Your task to perform on an android device: toggle airplane mode Image 0: 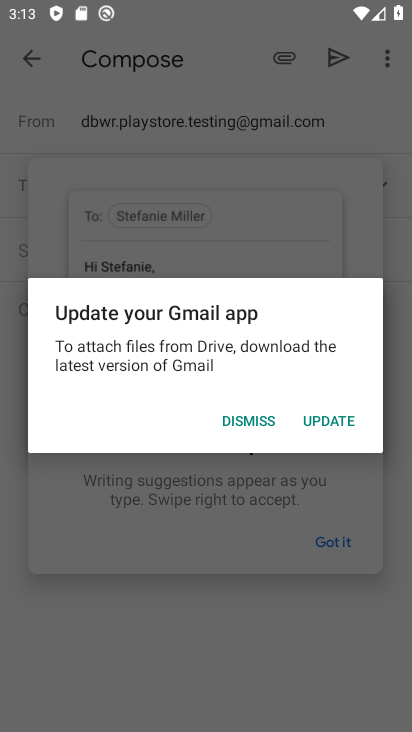
Step 0: press home button
Your task to perform on an android device: toggle airplane mode Image 1: 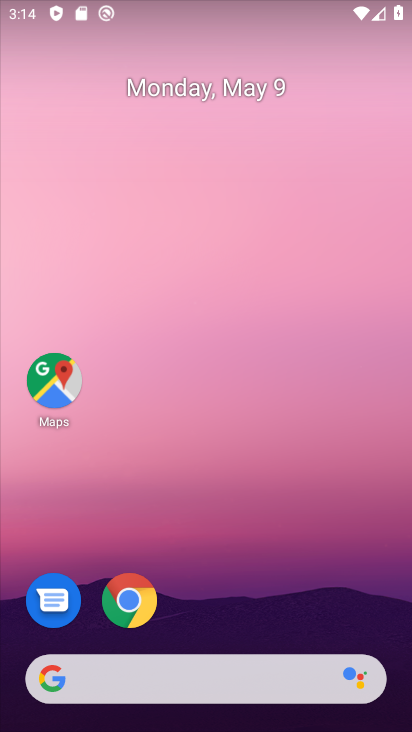
Step 1: drag from (217, 601) to (318, 81)
Your task to perform on an android device: toggle airplane mode Image 2: 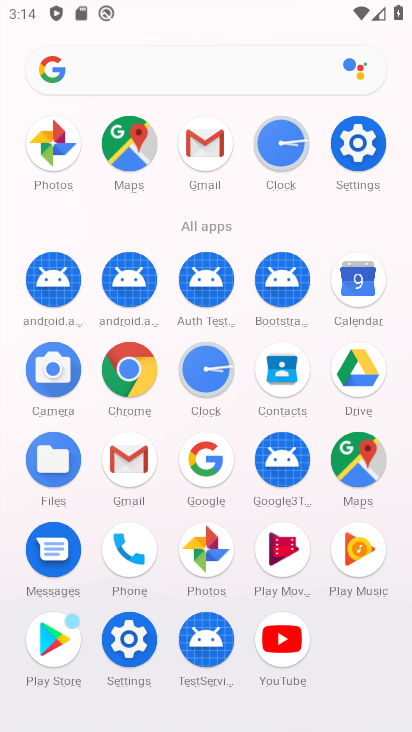
Step 2: click (148, 637)
Your task to perform on an android device: toggle airplane mode Image 3: 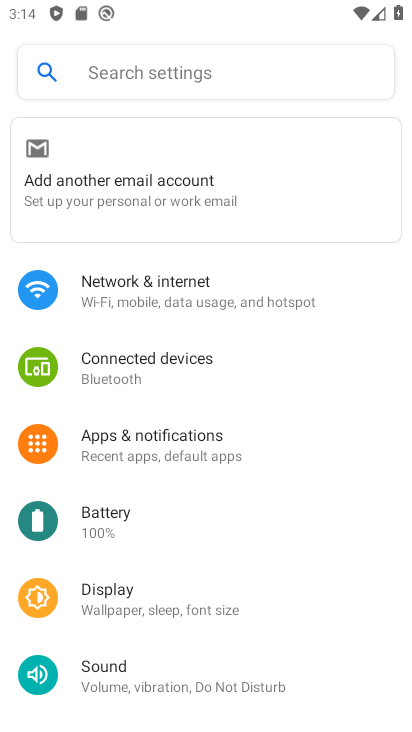
Step 3: click (218, 278)
Your task to perform on an android device: toggle airplane mode Image 4: 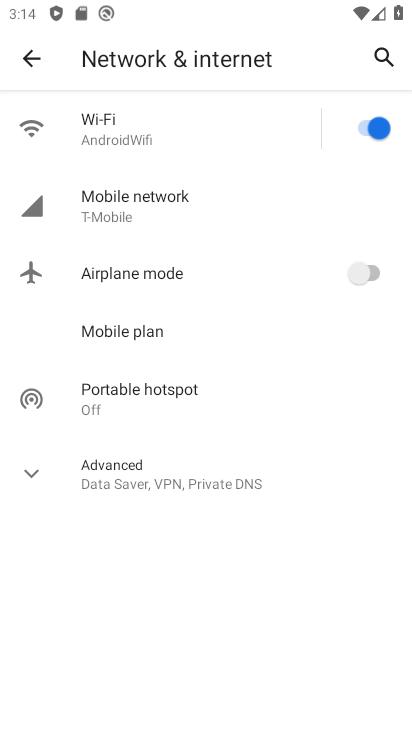
Step 4: click (381, 276)
Your task to perform on an android device: toggle airplane mode Image 5: 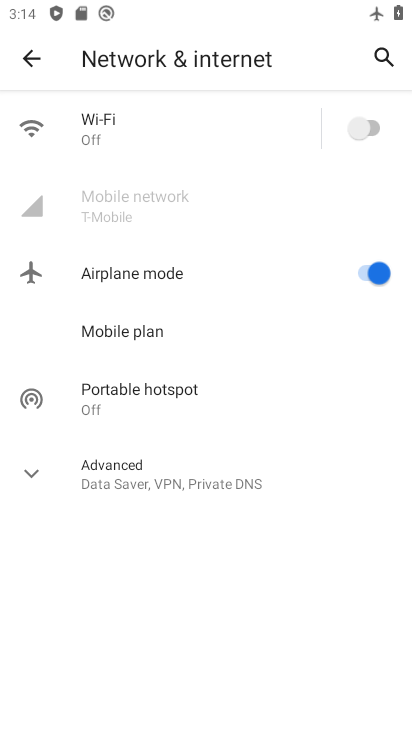
Step 5: task complete